Your task to perform on an android device: Open calendar and show me the fourth week of next month Image 0: 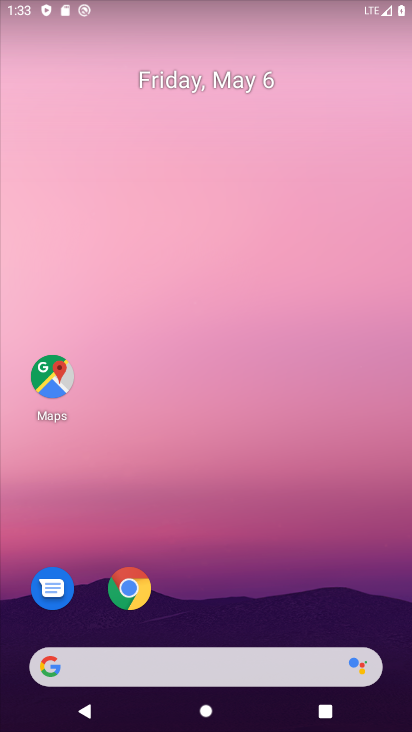
Step 0: drag from (336, 580) to (310, 159)
Your task to perform on an android device: Open calendar and show me the fourth week of next month Image 1: 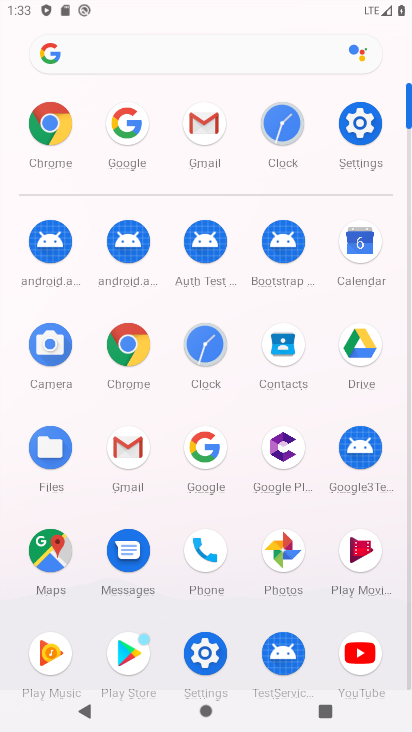
Step 1: click (363, 245)
Your task to perform on an android device: Open calendar and show me the fourth week of next month Image 2: 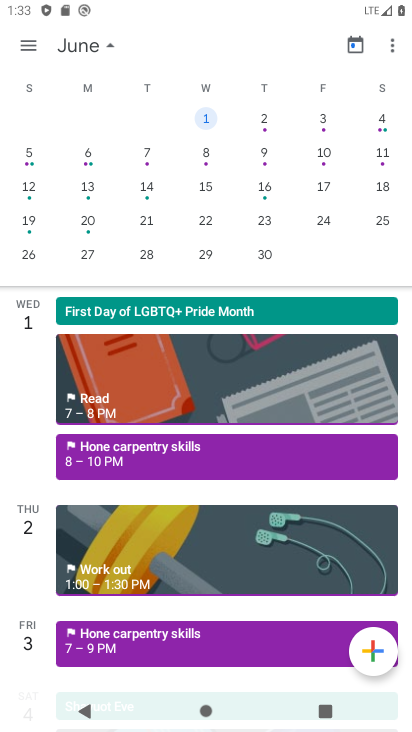
Step 2: click (28, 219)
Your task to perform on an android device: Open calendar and show me the fourth week of next month Image 3: 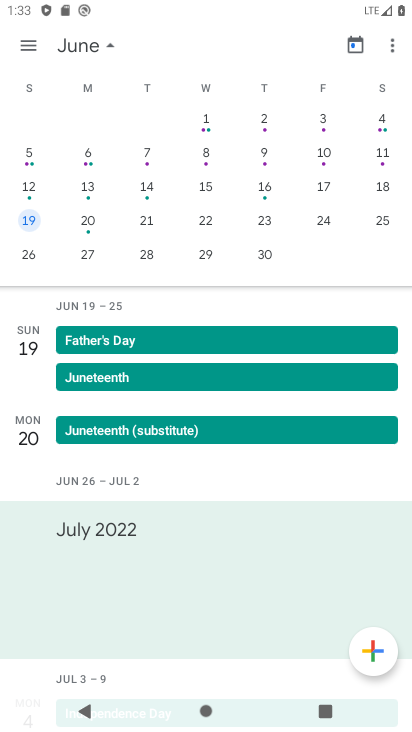
Step 3: task complete